Your task to perform on an android device: Go to internet settings Image 0: 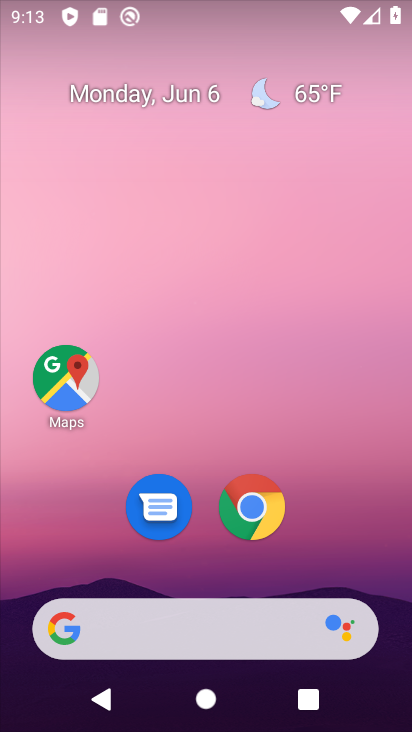
Step 0: drag from (298, 555) to (278, 195)
Your task to perform on an android device: Go to internet settings Image 1: 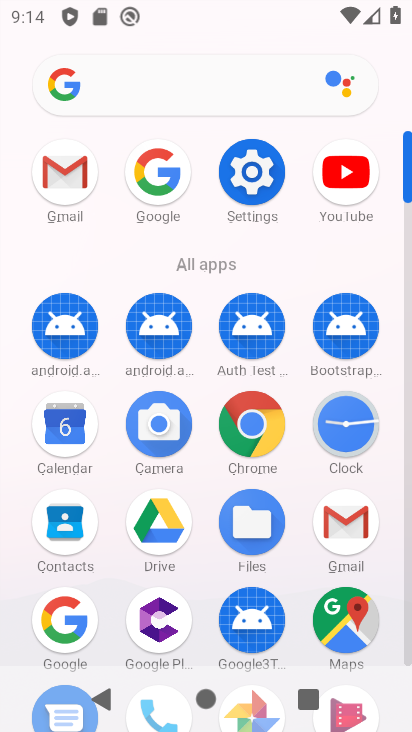
Step 1: click (233, 170)
Your task to perform on an android device: Go to internet settings Image 2: 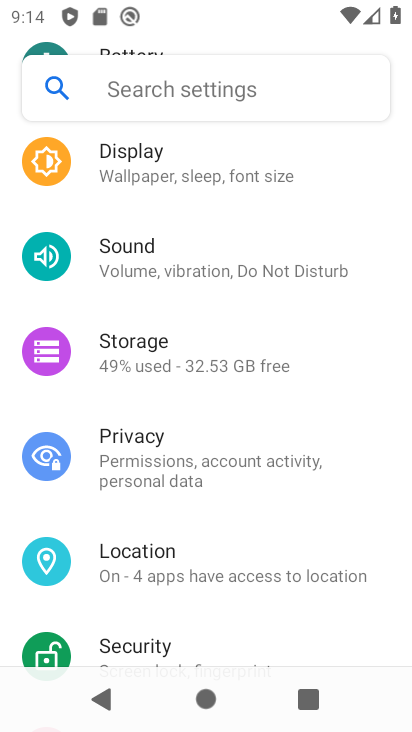
Step 2: drag from (169, 171) to (192, 494)
Your task to perform on an android device: Go to internet settings Image 3: 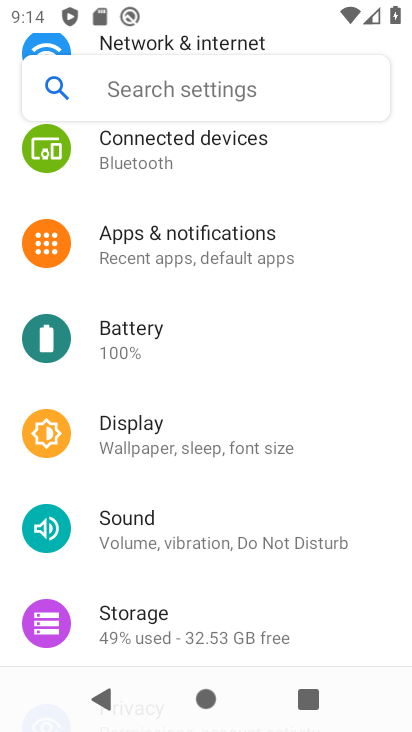
Step 3: drag from (169, 196) to (185, 590)
Your task to perform on an android device: Go to internet settings Image 4: 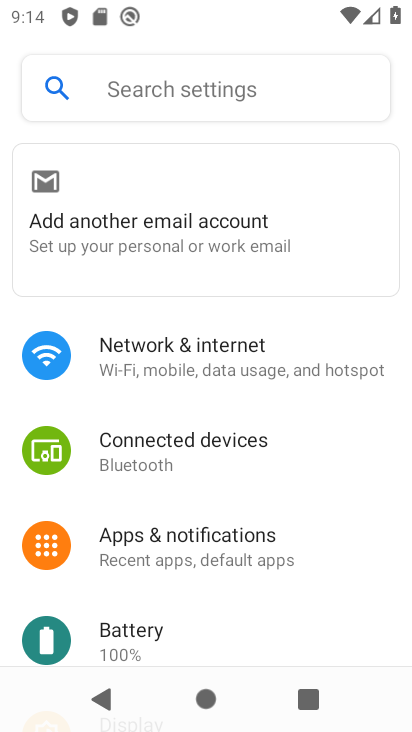
Step 4: click (177, 338)
Your task to perform on an android device: Go to internet settings Image 5: 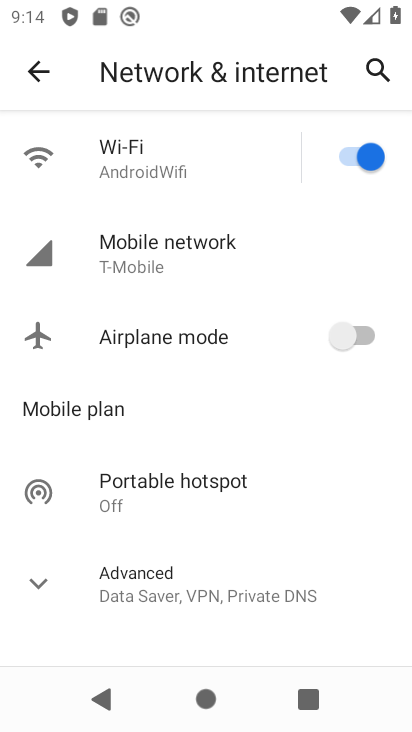
Step 5: task complete